Your task to perform on an android device: Add razer nari to the cart on bestbuy Image 0: 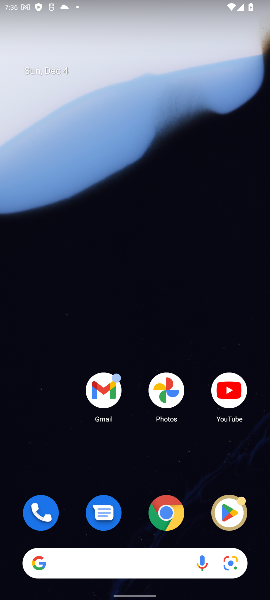
Step 0: click (168, 516)
Your task to perform on an android device: Add razer nari to the cart on bestbuy Image 1: 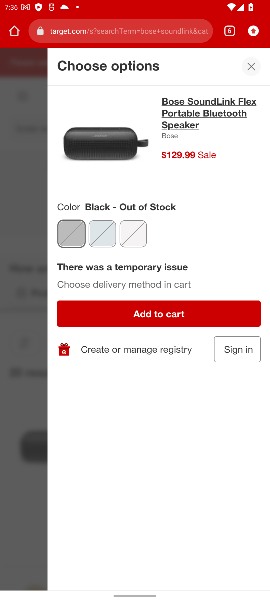
Step 1: click (226, 36)
Your task to perform on an android device: Add razer nari to the cart on bestbuy Image 2: 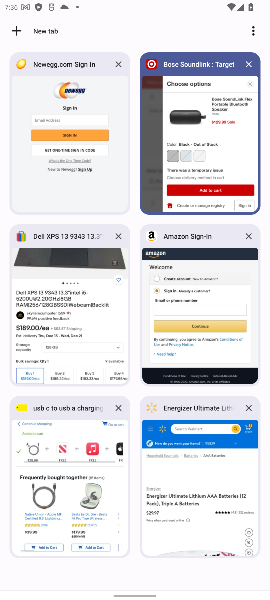
Step 2: click (71, 440)
Your task to perform on an android device: Add razer nari to the cart on bestbuy Image 3: 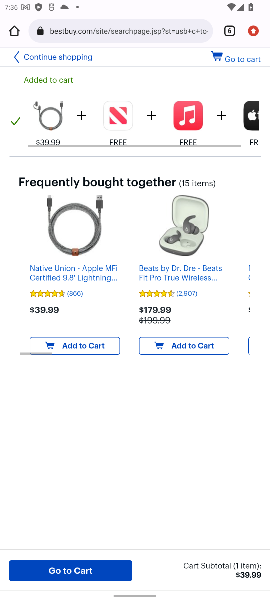
Step 3: click (76, 56)
Your task to perform on an android device: Add razer nari to the cart on bestbuy Image 4: 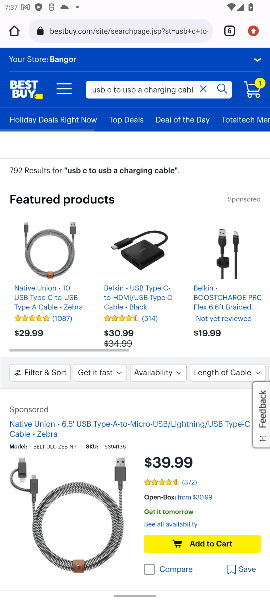
Step 4: click (203, 92)
Your task to perform on an android device: Add razer nari to the cart on bestbuy Image 5: 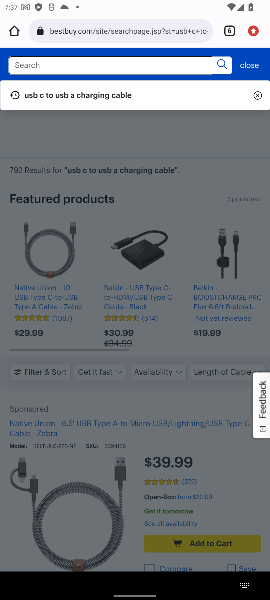
Step 5: type "razer nari "
Your task to perform on an android device: Add razer nari to the cart on bestbuy Image 6: 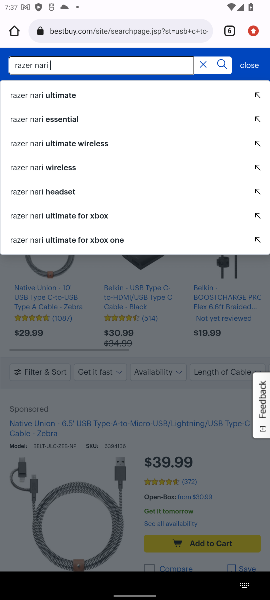
Step 6: click (221, 62)
Your task to perform on an android device: Add razer nari to the cart on bestbuy Image 7: 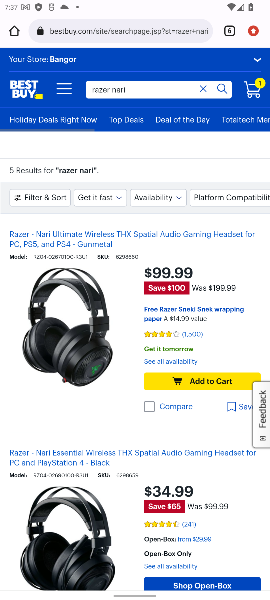
Step 7: click (196, 378)
Your task to perform on an android device: Add razer nari to the cart on bestbuy Image 8: 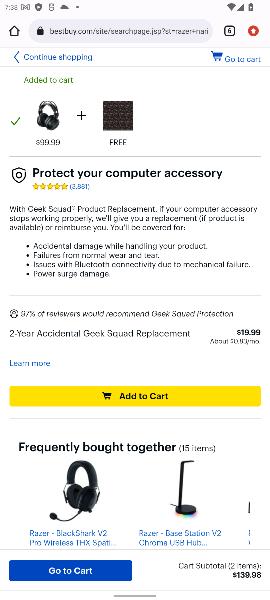
Step 8: task complete